Your task to perform on an android device: open app "Expedia: Hotels, Flights & Car" Image 0: 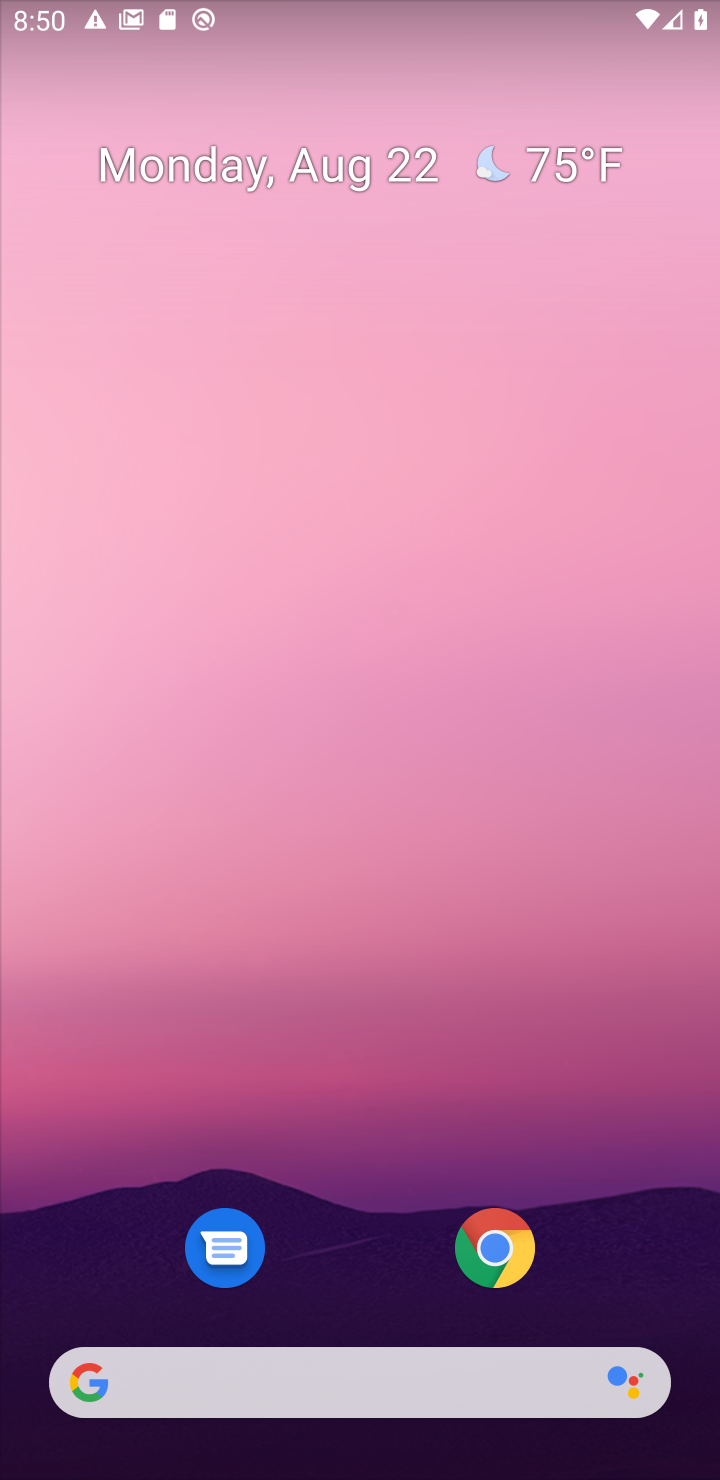
Step 0: drag from (368, 1326) to (326, 316)
Your task to perform on an android device: open app "Expedia: Hotels, Flights & Car" Image 1: 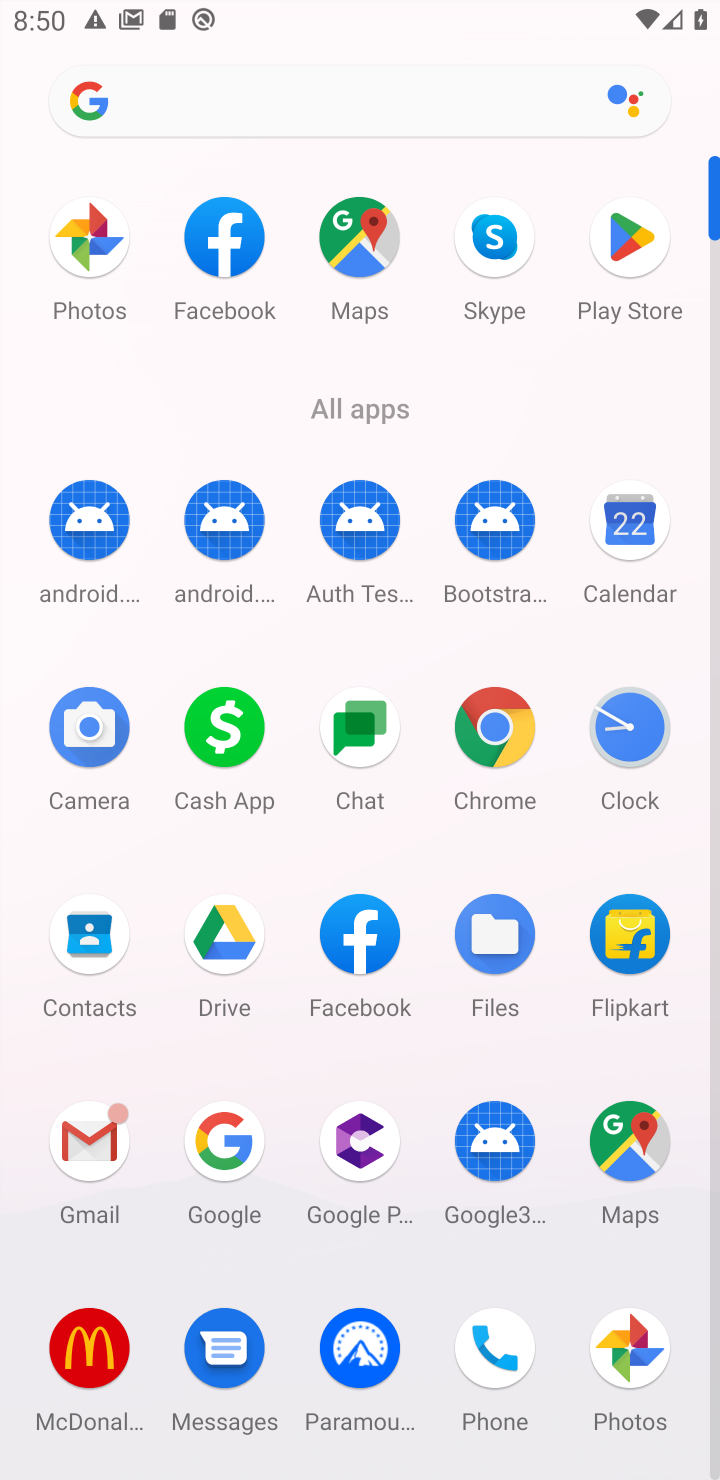
Step 1: click (630, 232)
Your task to perform on an android device: open app "Expedia: Hotels, Flights & Car" Image 2: 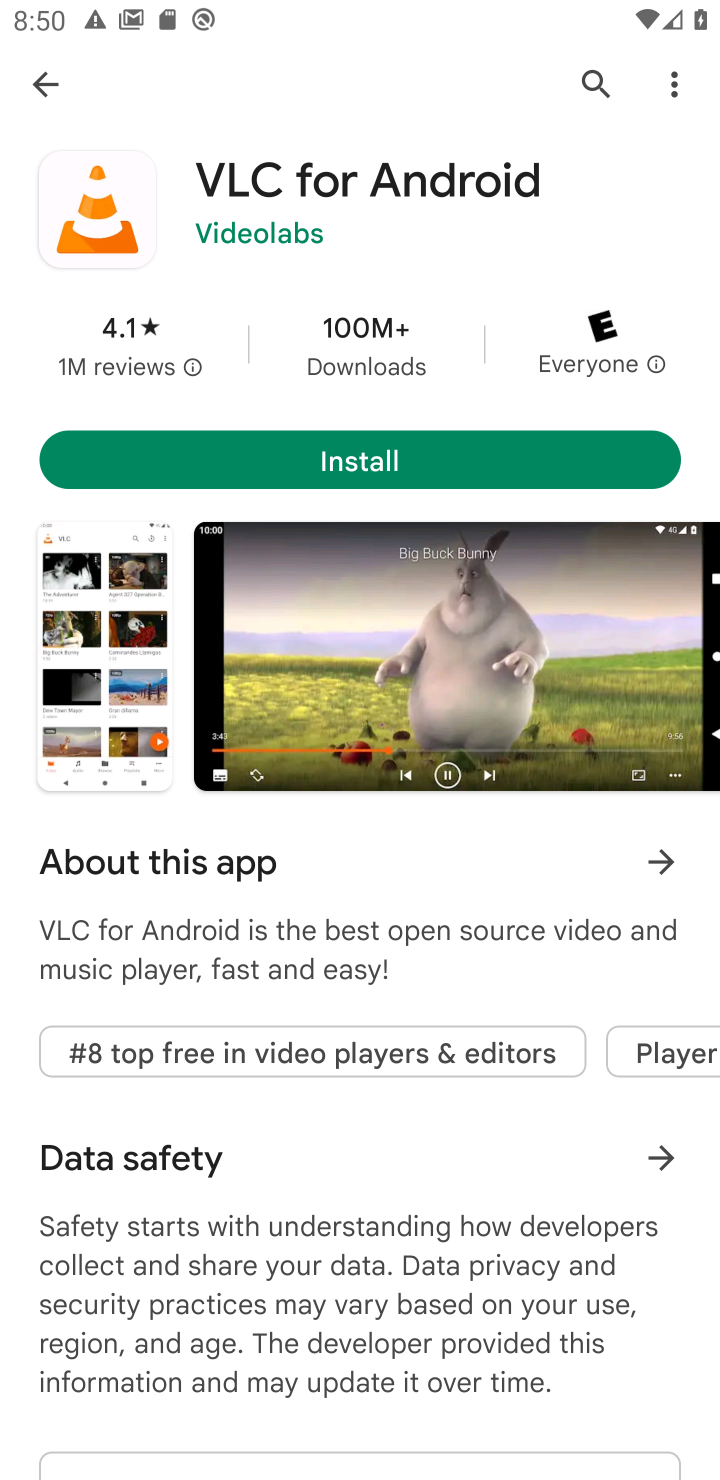
Step 2: click (585, 74)
Your task to perform on an android device: open app "Expedia: Hotels, Flights & Car" Image 3: 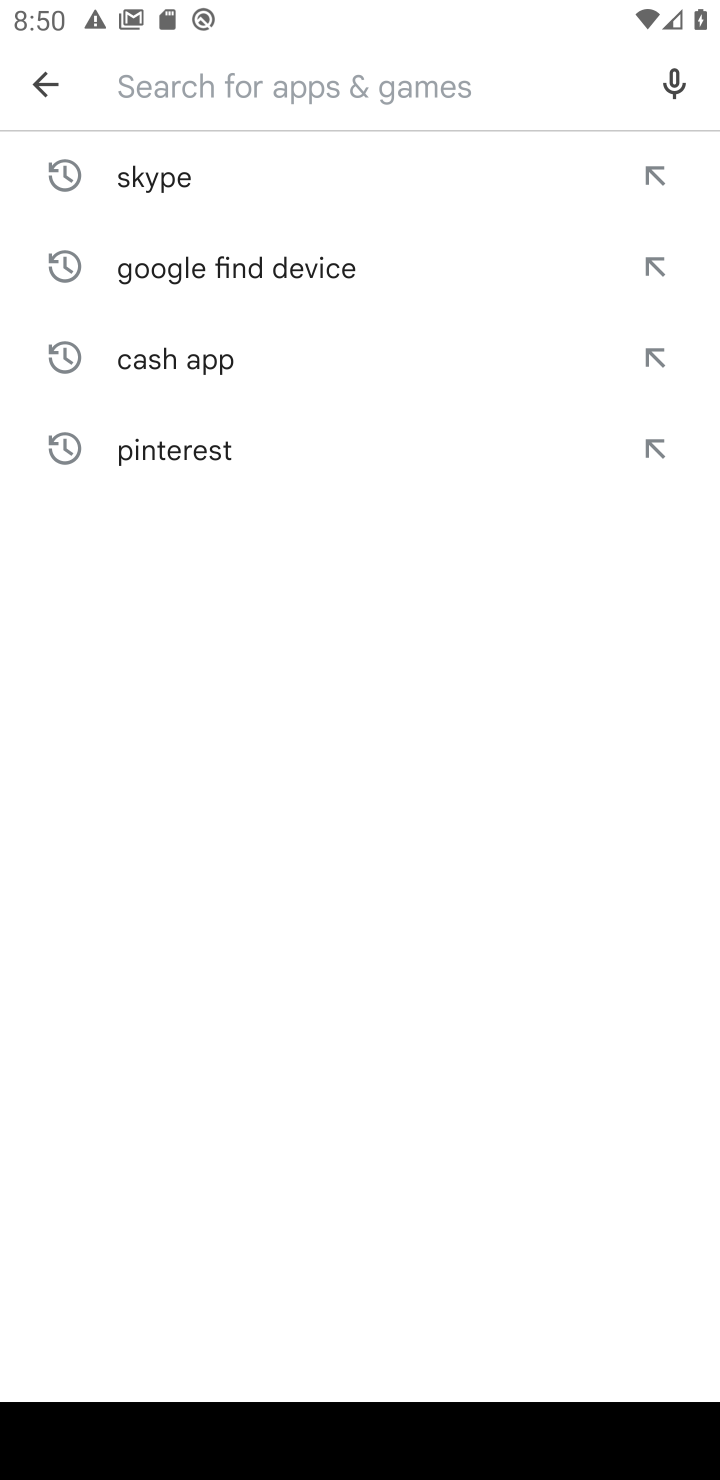
Step 3: type "Expedia: Hotels, Flights & Car"
Your task to perform on an android device: open app "Expedia: Hotels, Flights & Car" Image 4: 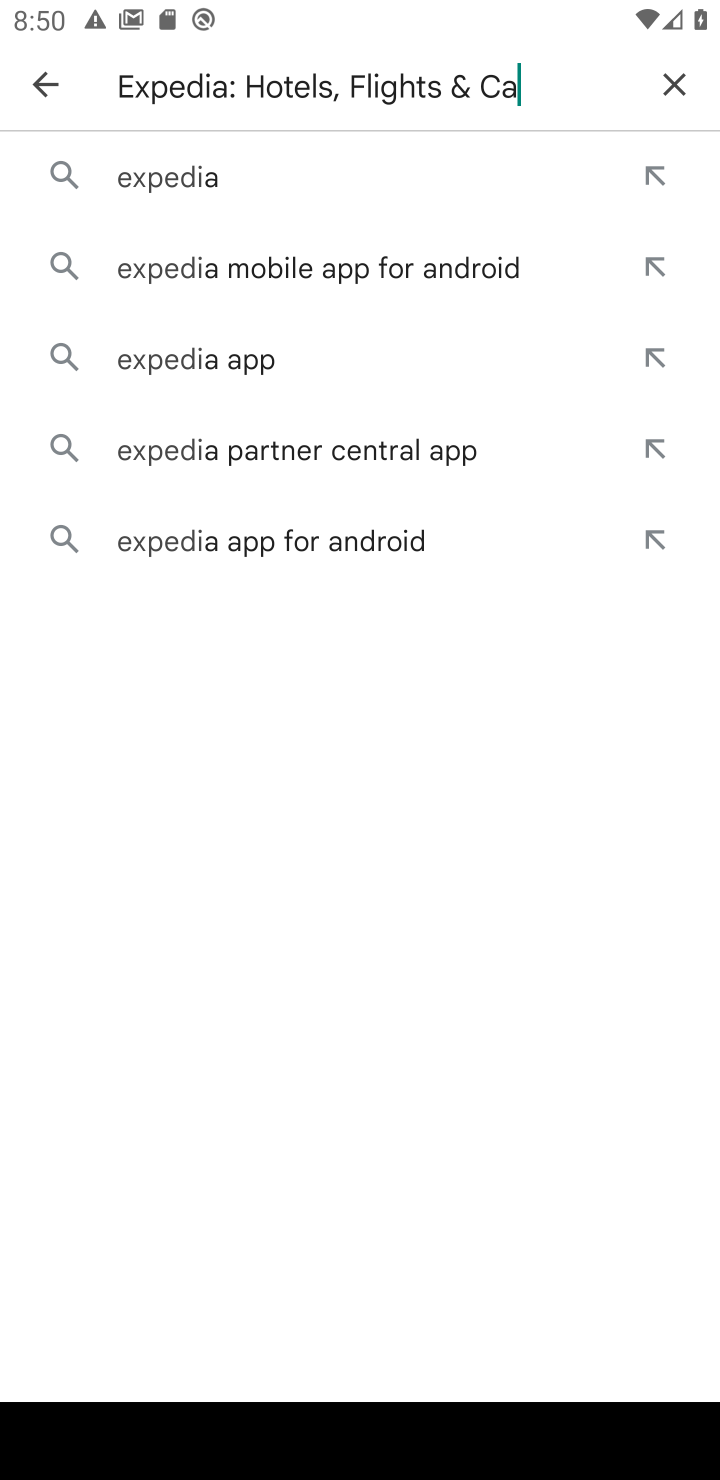
Step 4: type ""
Your task to perform on an android device: open app "Expedia: Hotels, Flights & Car" Image 5: 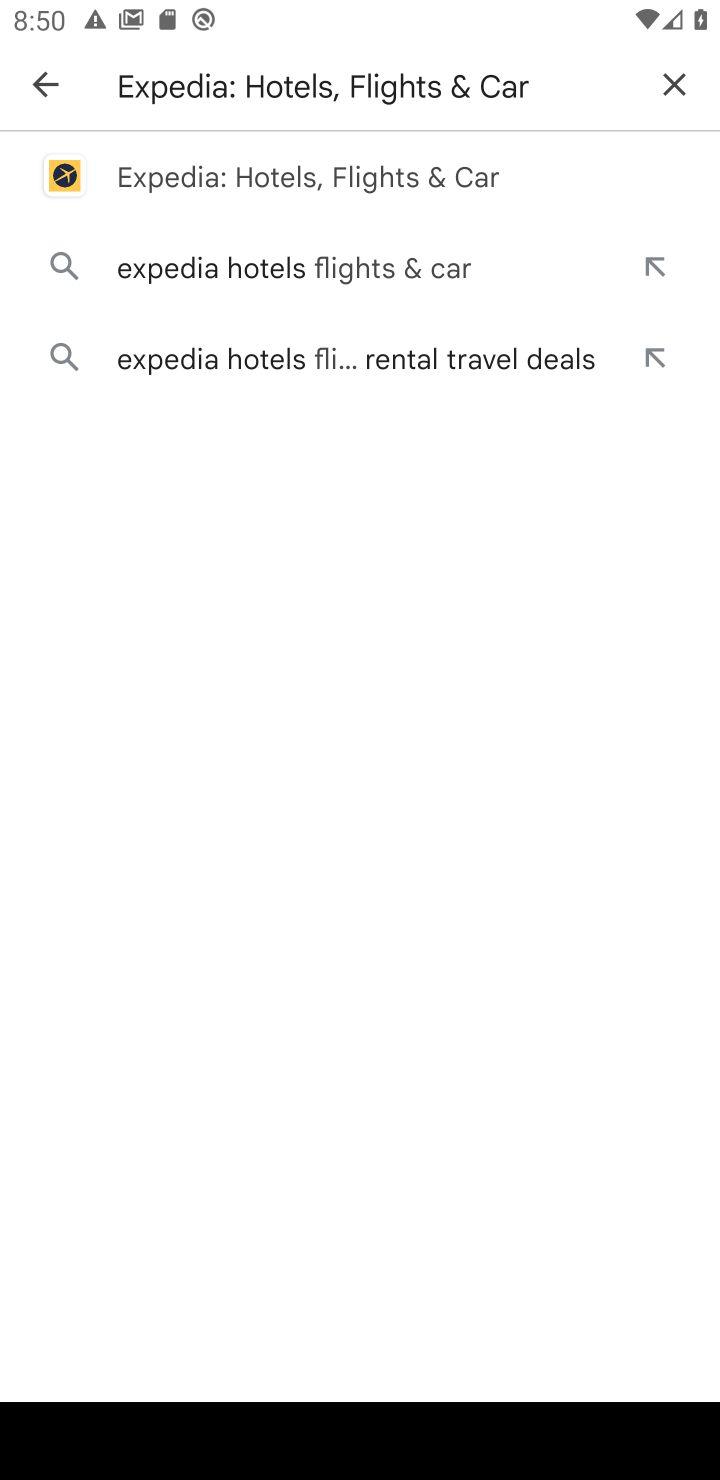
Step 5: click (325, 171)
Your task to perform on an android device: open app "Expedia: Hotels, Flights & Car" Image 6: 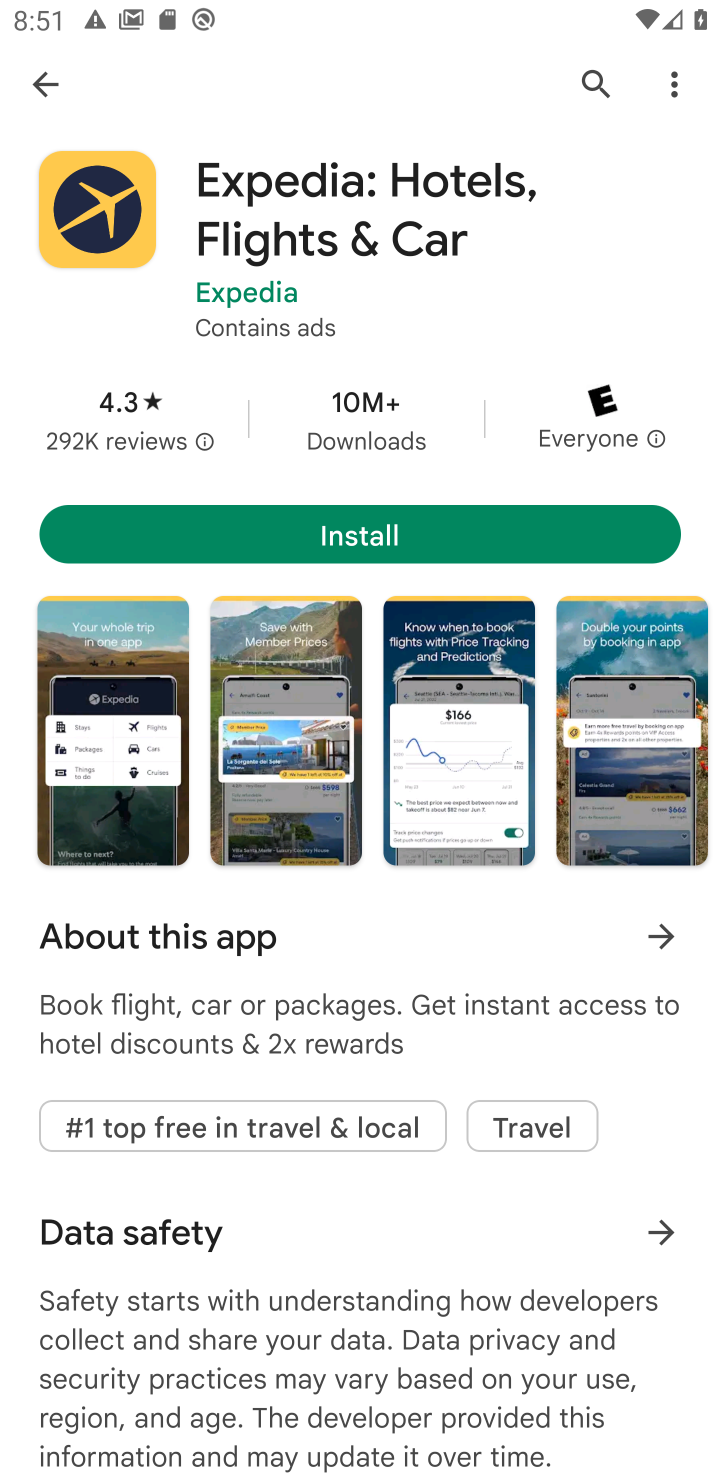
Step 6: task complete